Your task to perform on an android device: Search for pizza restaurants on Maps Image 0: 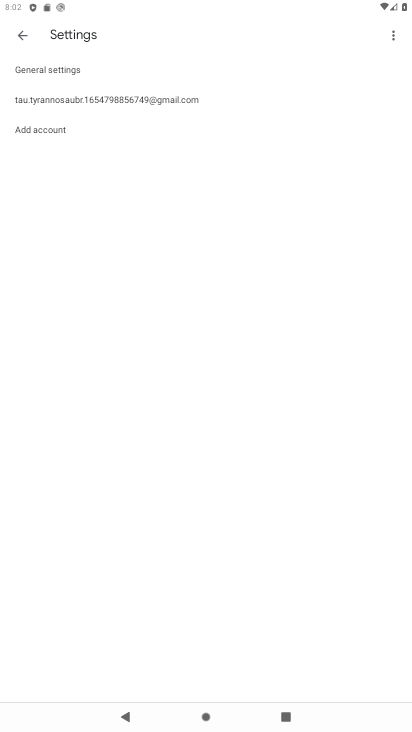
Step 0: press home button
Your task to perform on an android device: Search for pizza restaurants on Maps Image 1: 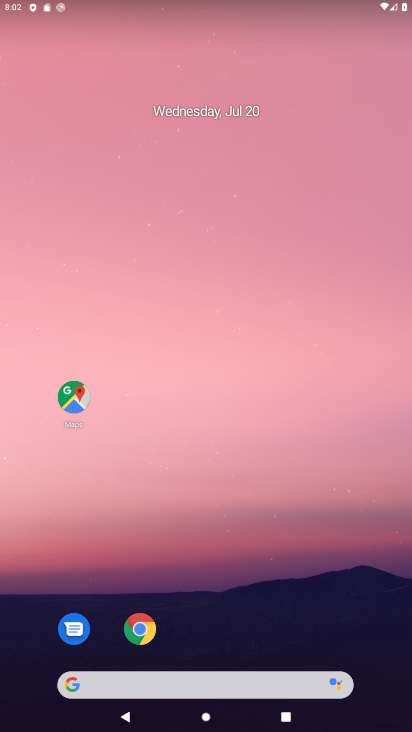
Step 1: click (74, 392)
Your task to perform on an android device: Search for pizza restaurants on Maps Image 2: 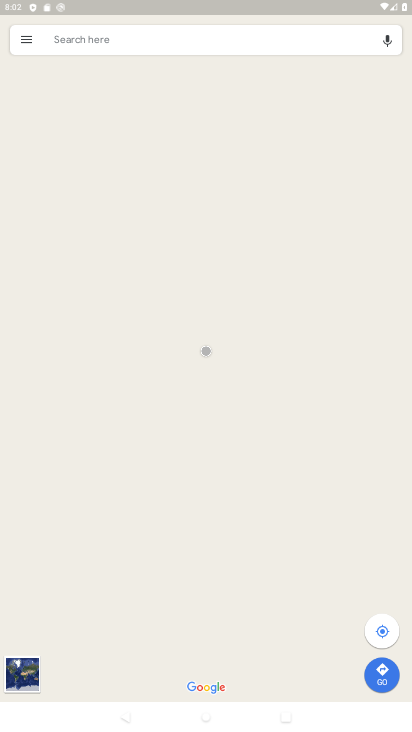
Step 2: click (106, 45)
Your task to perform on an android device: Search for pizza restaurants on Maps Image 3: 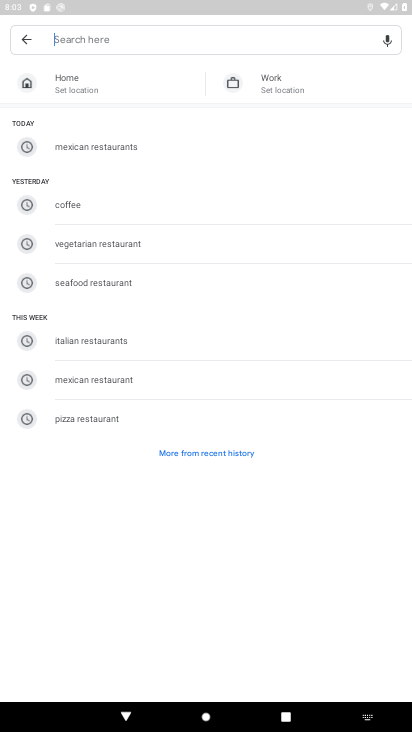
Step 3: type "pizza restaurants"
Your task to perform on an android device: Search for pizza restaurants on Maps Image 4: 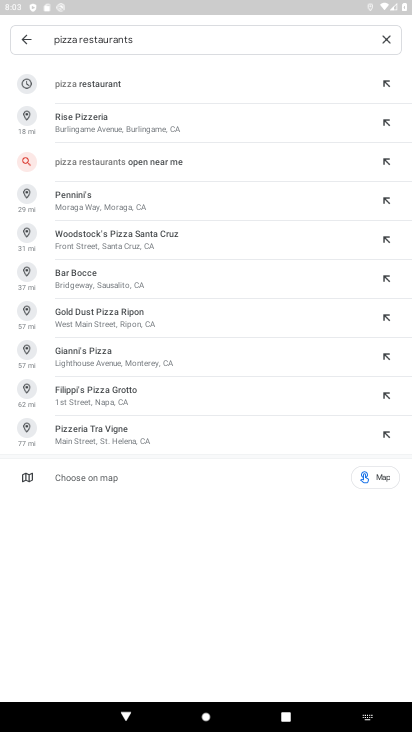
Step 4: click (367, 82)
Your task to perform on an android device: Search for pizza restaurants on Maps Image 5: 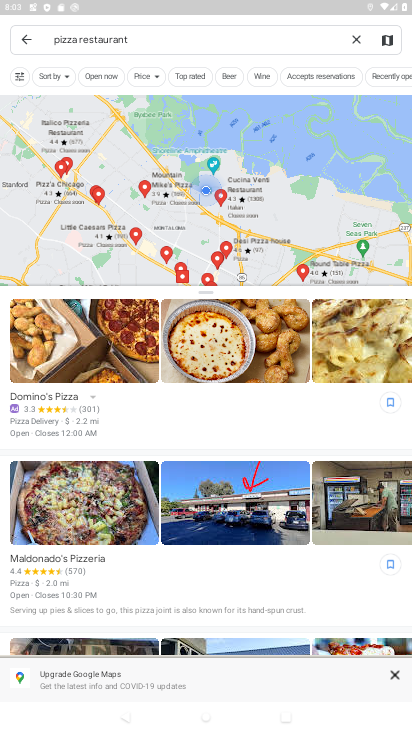
Step 5: task complete